Your task to perform on an android device: toggle translation in the chrome app Image 0: 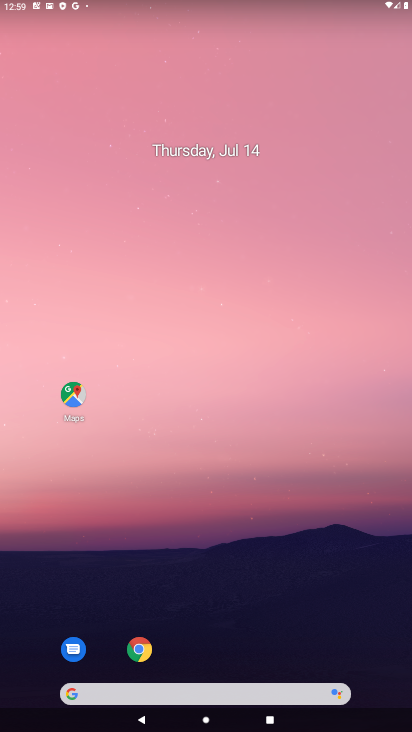
Step 0: drag from (352, 672) to (189, 4)
Your task to perform on an android device: toggle translation in the chrome app Image 1: 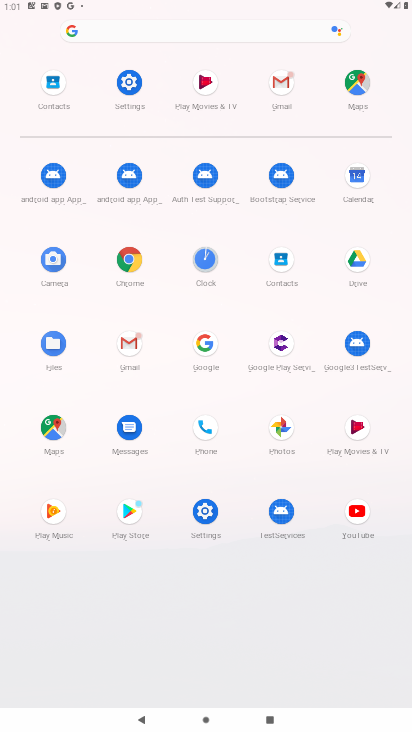
Step 1: click (123, 268)
Your task to perform on an android device: toggle translation in the chrome app Image 2: 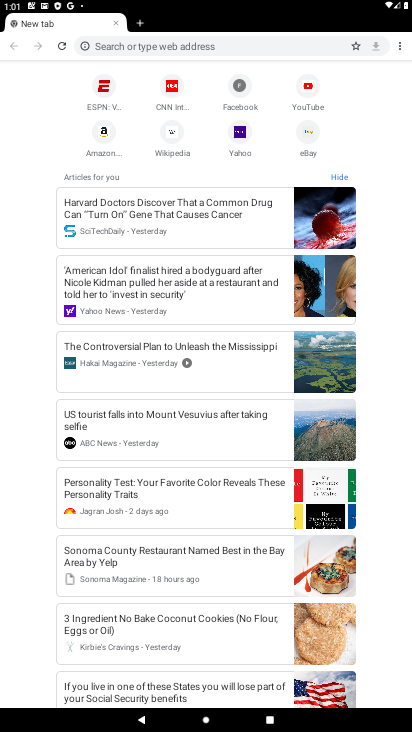
Step 2: click (399, 49)
Your task to perform on an android device: toggle translation in the chrome app Image 3: 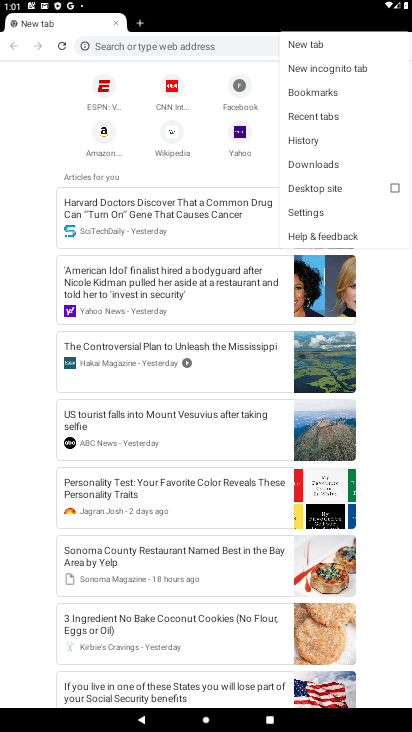
Step 3: click (304, 211)
Your task to perform on an android device: toggle translation in the chrome app Image 4: 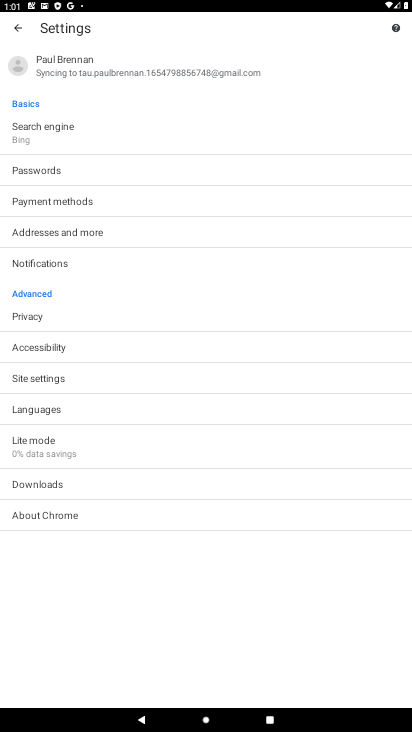
Step 4: click (80, 408)
Your task to perform on an android device: toggle translation in the chrome app Image 5: 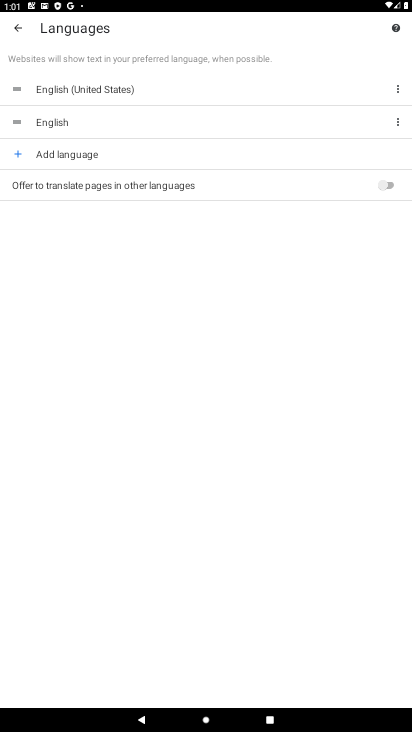
Step 5: click (376, 185)
Your task to perform on an android device: toggle translation in the chrome app Image 6: 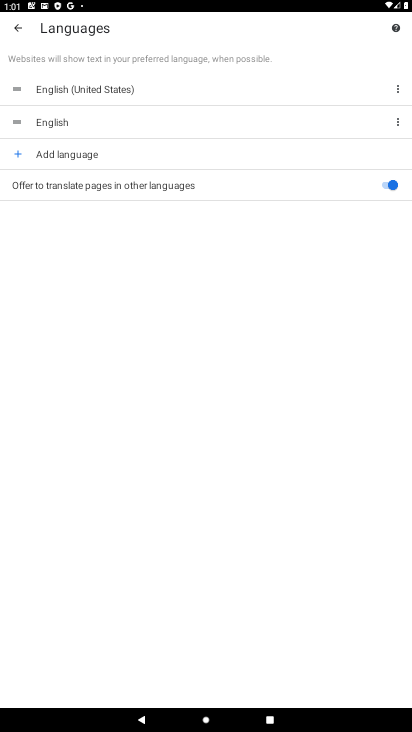
Step 6: task complete